Your task to perform on an android device: toggle location history Image 0: 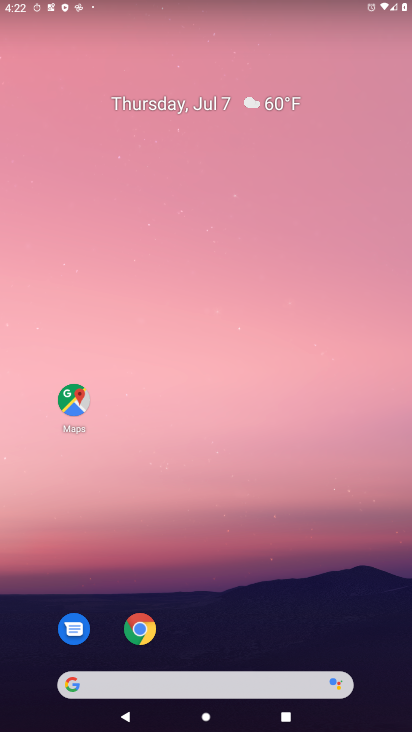
Step 0: press home button
Your task to perform on an android device: toggle location history Image 1: 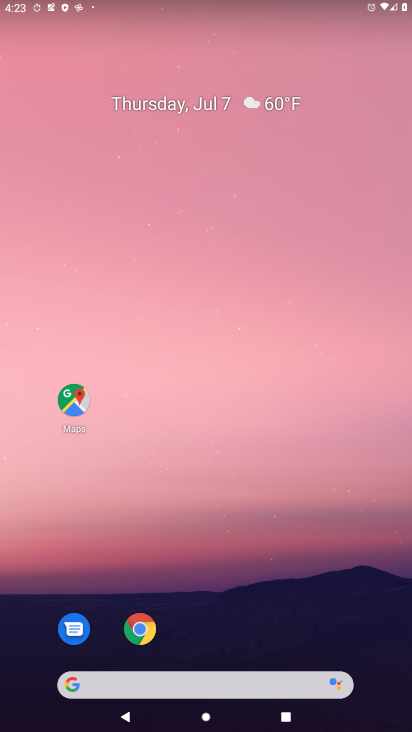
Step 1: drag from (158, 194) to (158, 148)
Your task to perform on an android device: toggle location history Image 2: 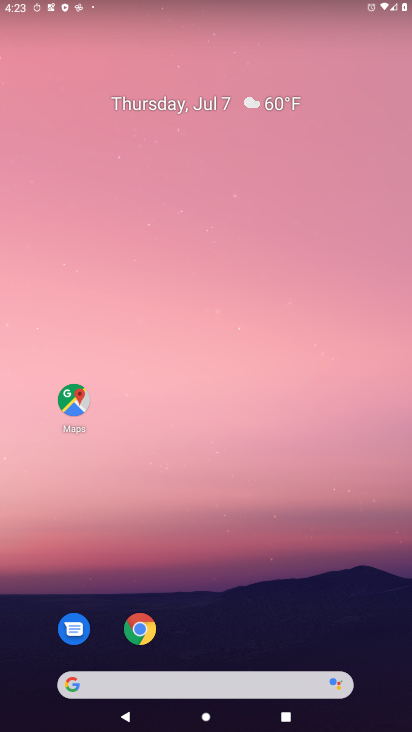
Step 2: drag from (184, 371) to (179, 22)
Your task to perform on an android device: toggle location history Image 3: 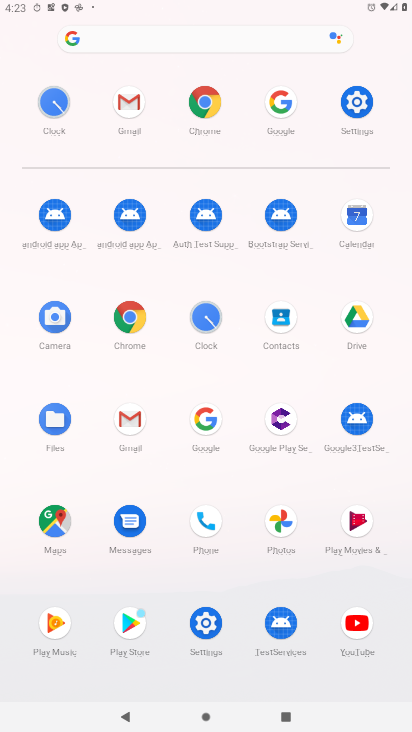
Step 3: click (357, 108)
Your task to perform on an android device: toggle location history Image 4: 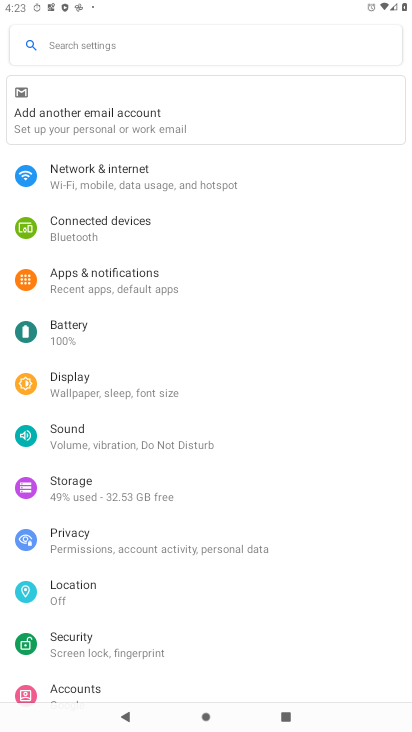
Step 4: click (86, 597)
Your task to perform on an android device: toggle location history Image 5: 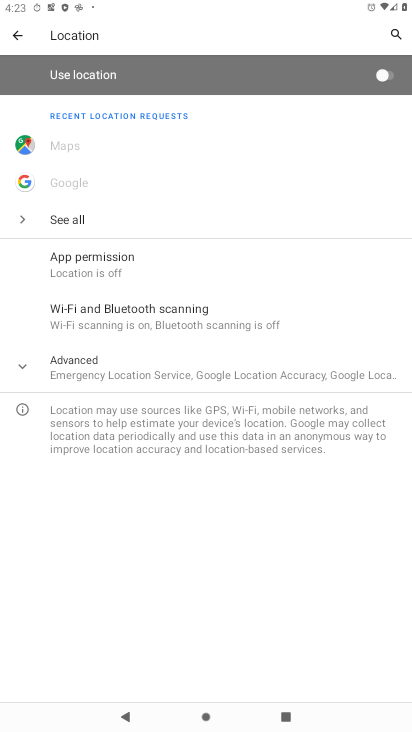
Step 5: click (118, 368)
Your task to perform on an android device: toggle location history Image 6: 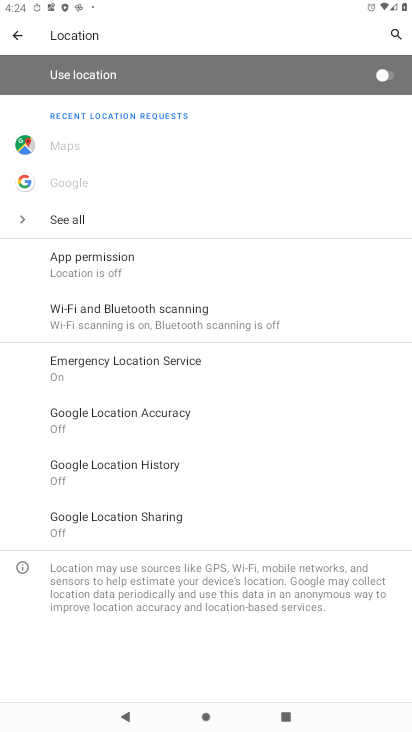
Step 6: click (145, 478)
Your task to perform on an android device: toggle location history Image 7: 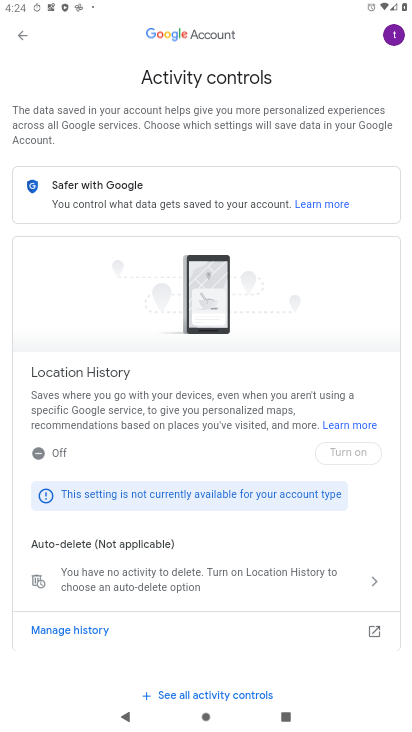
Step 7: click (50, 457)
Your task to perform on an android device: toggle location history Image 8: 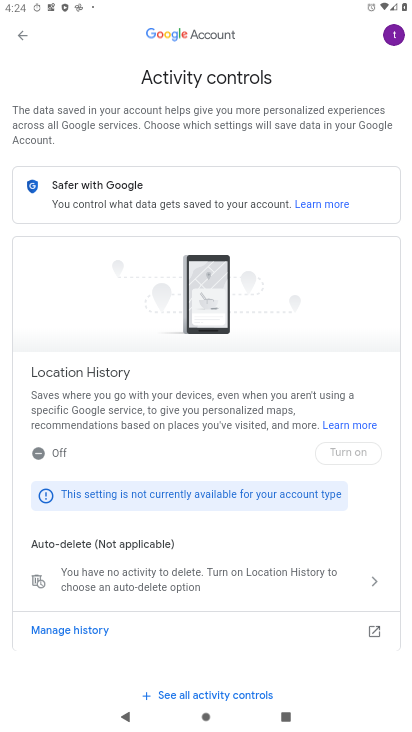
Step 8: click (351, 456)
Your task to perform on an android device: toggle location history Image 9: 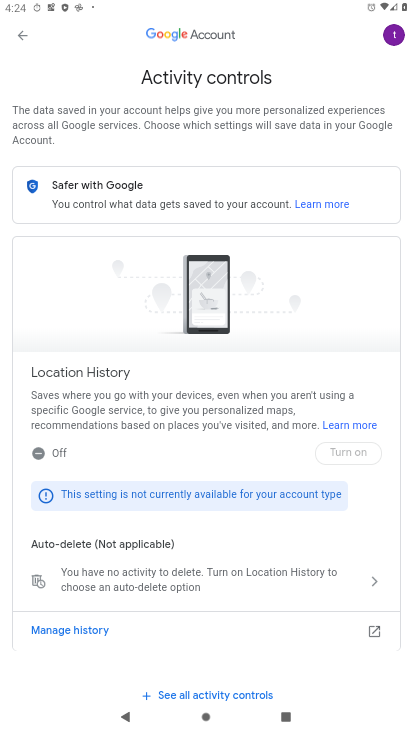
Step 9: task complete